Your task to perform on an android device: Open calendar and show me the first week of next month Image 0: 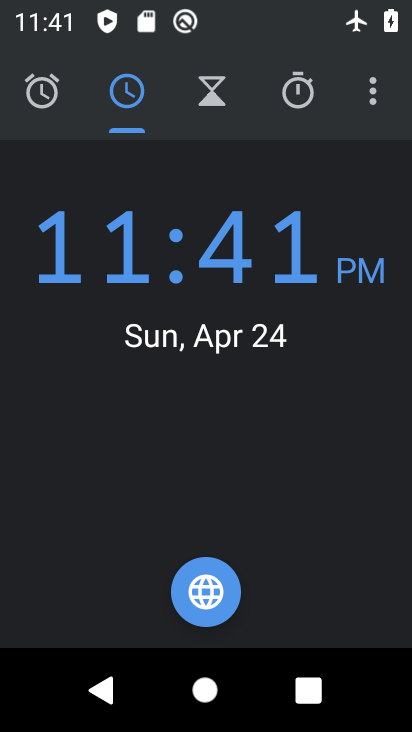
Step 0: press home button
Your task to perform on an android device: Open calendar and show me the first week of next month Image 1: 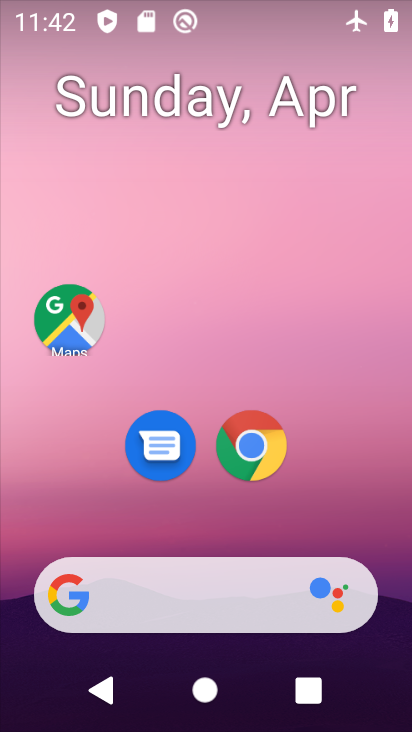
Step 1: drag from (353, 546) to (256, 131)
Your task to perform on an android device: Open calendar and show me the first week of next month Image 2: 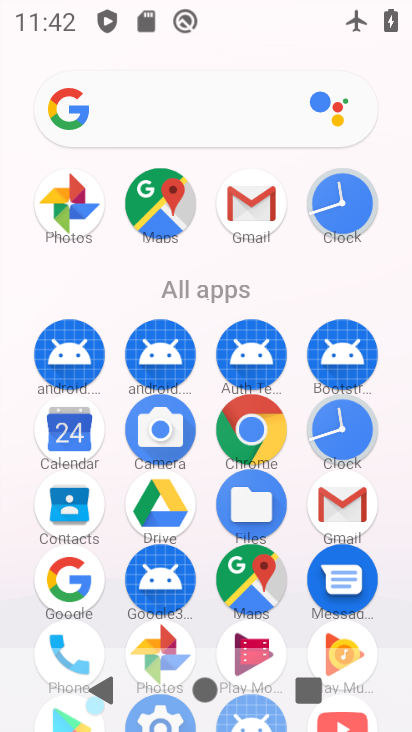
Step 2: click (60, 441)
Your task to perform on an android device: Open calendar and show me the first week of next month Image 3: 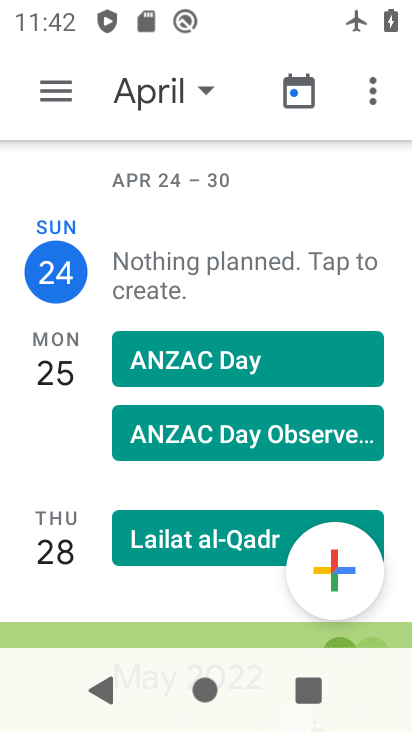
Step 3: click (161, 96)
Your task to perform on an android device: Open calendar and show me the first week of next month Image 4: 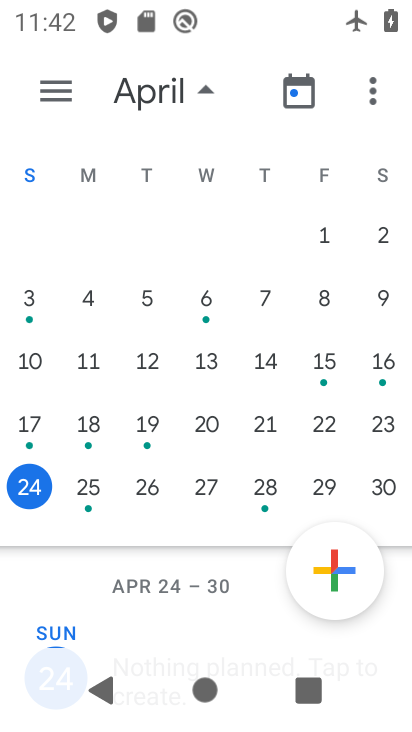
Step 4: drag from (368, 312) to (15, 280)
Your task to perform on an android device: Open calendar and show me the first week of next month Image 5: 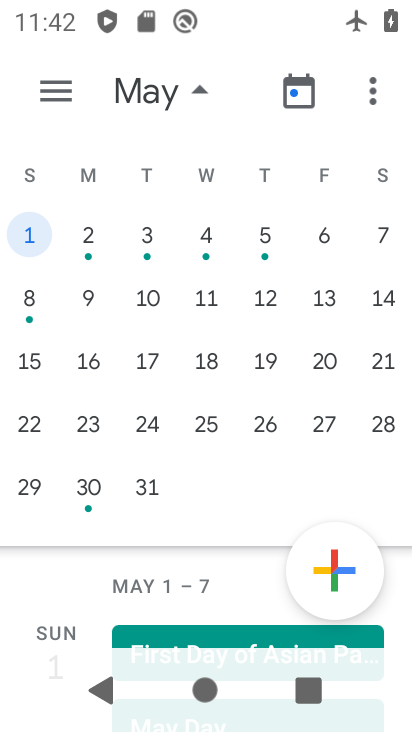
Step 5: click (151, 241)
Your task to perform on an android device: Open calendar and show me the first week of next month Image 6: 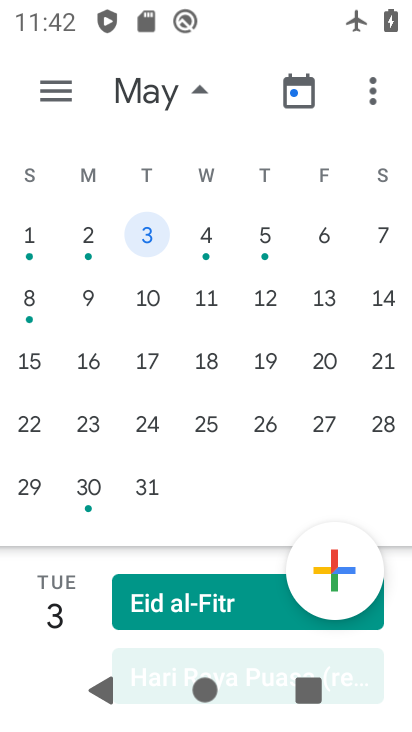
Step 6: click (53, 74)
Your task to perform on an android device: Open calendar and show me the first week of next month Image 7: 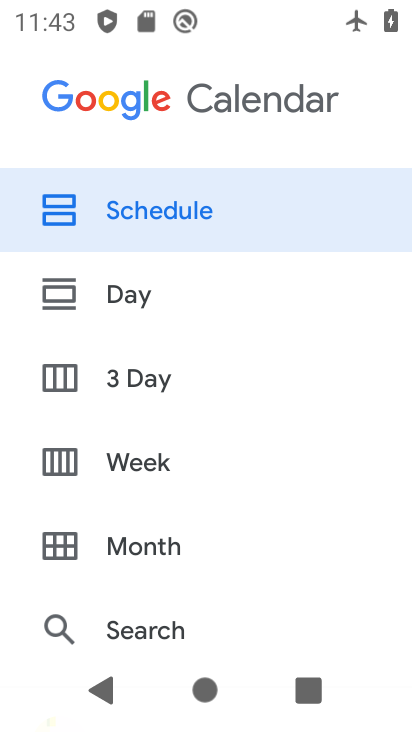
Step 7: click (154, 471)
Your task to perform on an android device: Open calendar and show me the first week of next month Image 8: 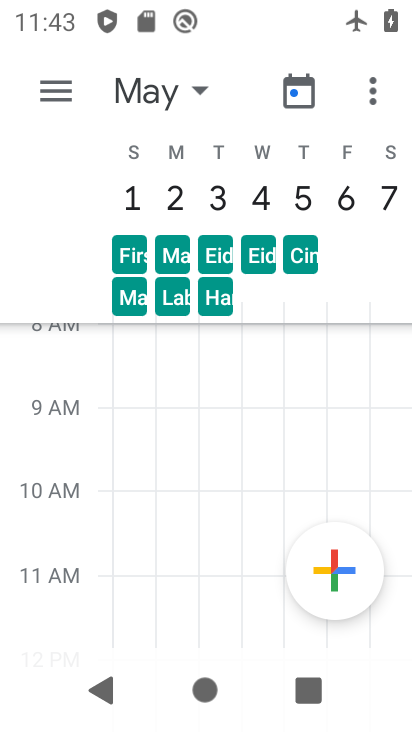
Step 8: task complete